Your task to perform on an android device: Find coffee shops on Maps Image 0: 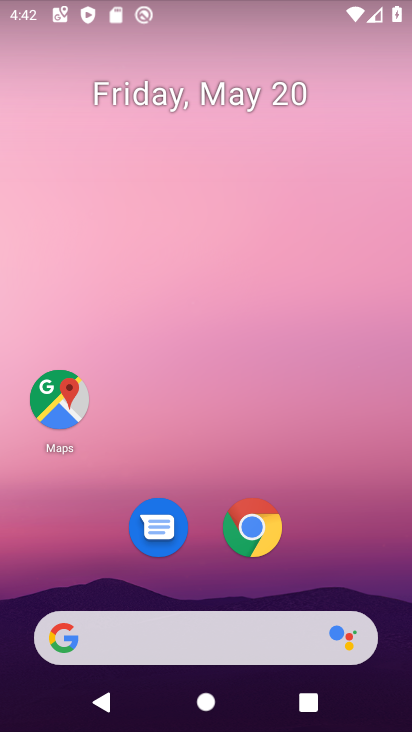
Step 0: drag from (203, 498) to (228, 178)
Your task to perform on an android device: Find coffee shops on Maps Image 1: 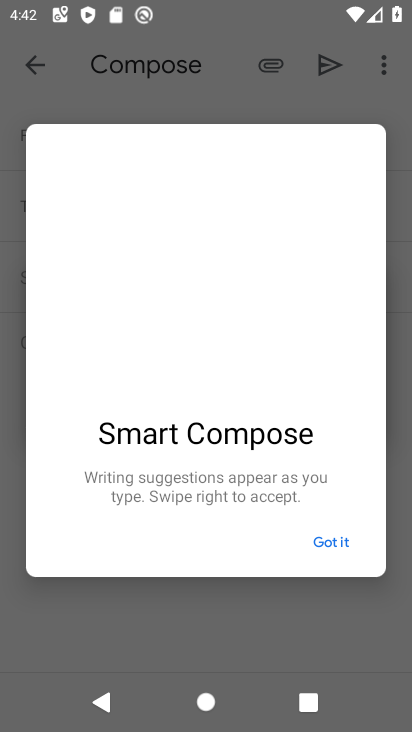
Step 1: press home button
Your task to perform on an android device: Find coffee shops on Maps Image 2: 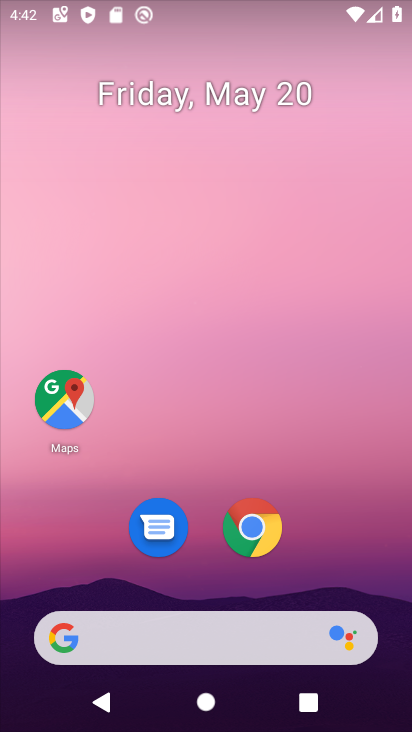
Step 2: click (69, 391)
Your task to perform on an android device: Find coffee shops on Maps Image 3: 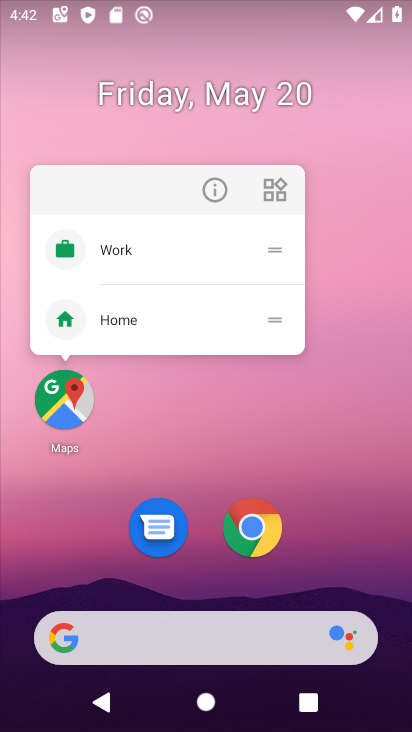
Step 3: click (51, 408)
Your task to perform on an android device: Find coffee shops on Maps Image 4: 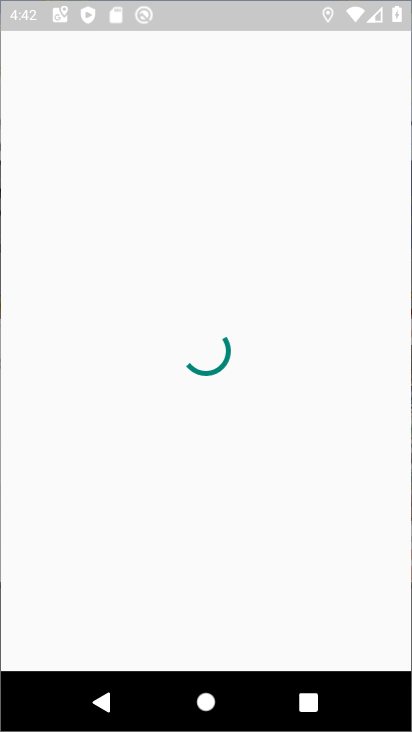
Step 4: click (309, 73)
Your task to perform on an android device: Find coffee shops on Maps Image 5: 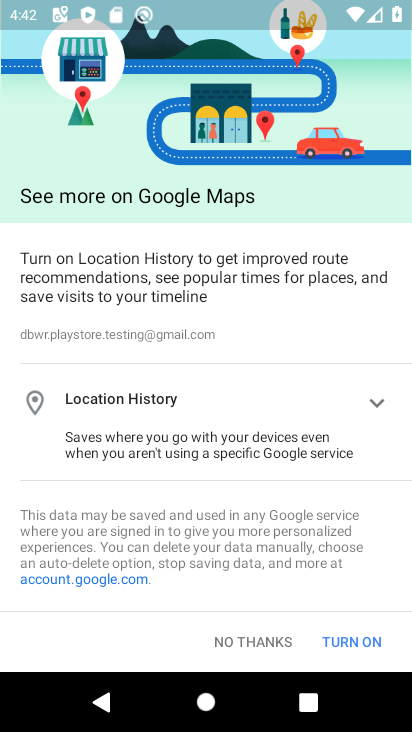
Step 5: click (361, 642)
Your task to perform on an android device: Find coffee shops on Maps Image 6: 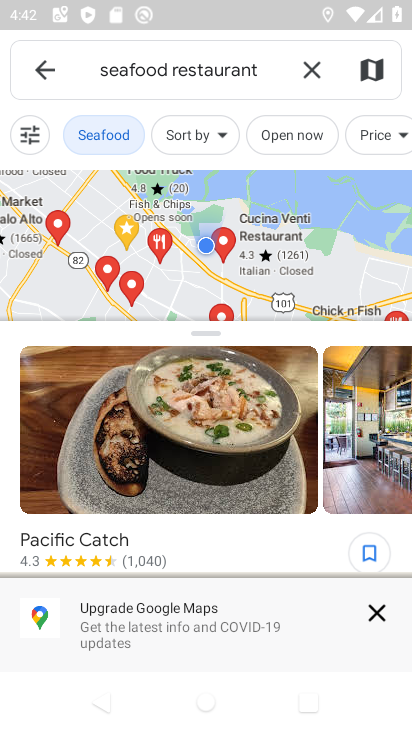
Step 6: click (307, 67)
Your task to perform on an android device: Find coffee shops on Maps Image 7: 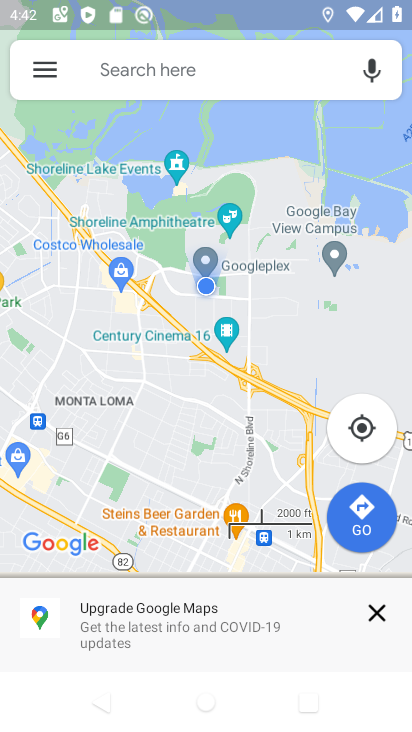
Step 7: click (211, 65)
Your task to perform on an android device: Find coffee shops on Maps Image 8: 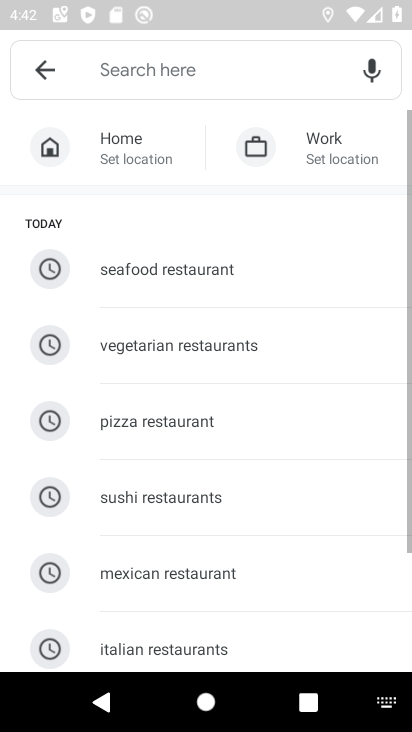
Step 8: drag from (167, 613) to (167, 230)
Your task to perform on an android device: Find coffee shops on Maps Image 9: 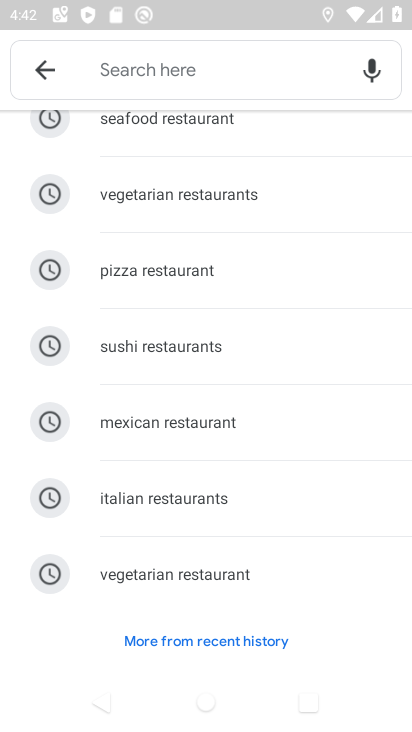
Step 9: click (168, 644)
Your task to perform on an android device: Find coffee shops on Maps Image 10: 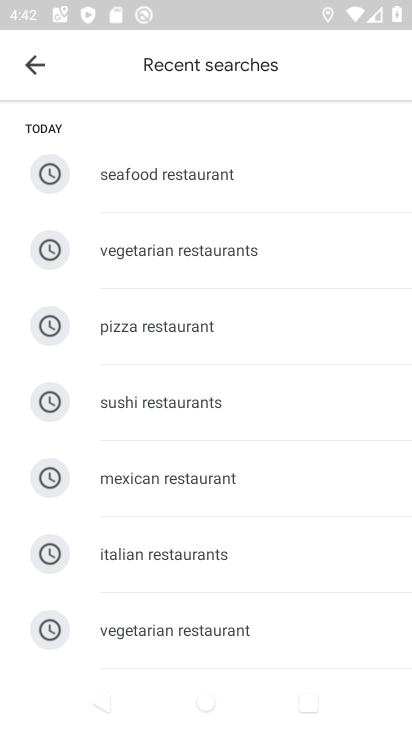
Step 10: drag from (168, 644) to (226, 318)
Your task to perform on an android device: Find coffee shops on Maps Image 11: 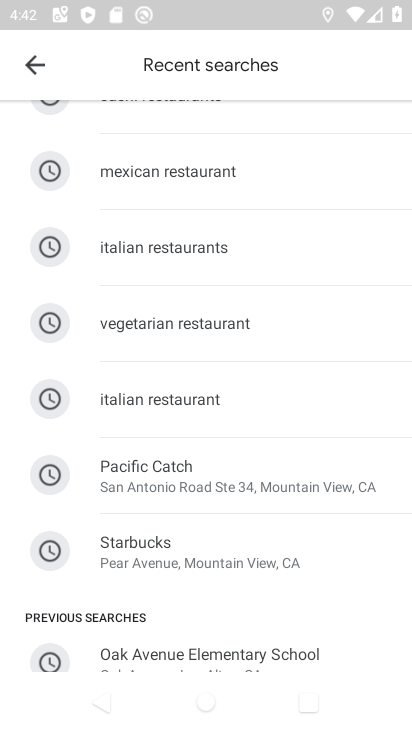
Step 11: drag from (203, 661) to (238, 328)
Your task to perform on an android device: Find coffee shops on Maps Image 12: 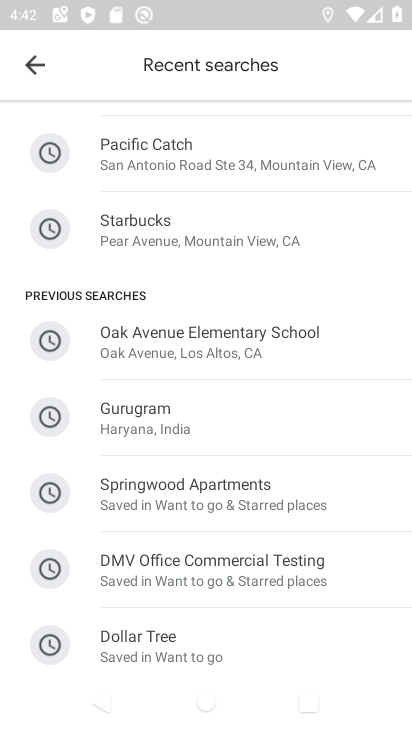
Step 12: drag from (232, 608) to (268, 249)
Your task to perform on an android device: Find coffee shops on Maps Image 13: 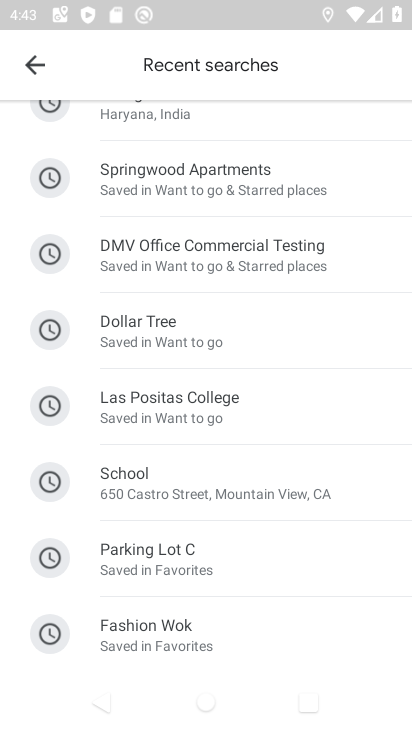
Step 13: drag from (212, 609) to (287, 234)
Your task to perform on an android device: Find coffee shops on Maps Image 14: 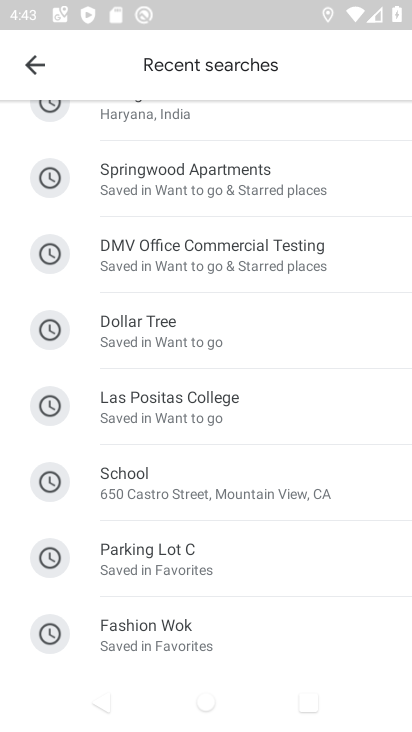
Step 14: drag from (186, 648) to (212, 348)
Your task to perform on an android device: Find coffee shops on Maps Image 15: 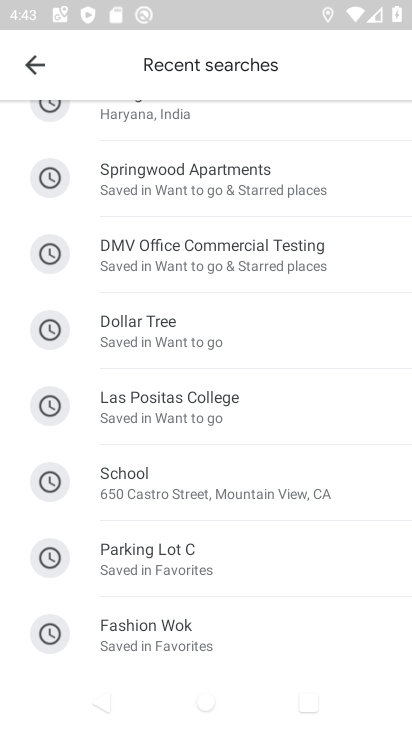
Step 15: click (28, 62)
Your task to perform on an android device: Find coffee shops on Maps Image 16: 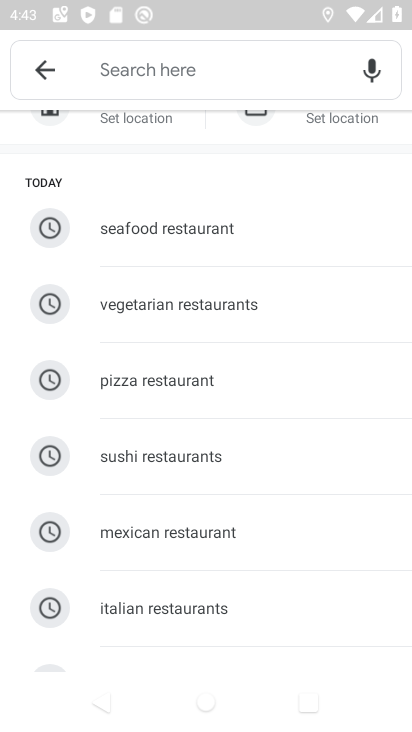
Step 16: type "coffee shopes"
Your task to perform on an android device: Find coffee shops on Maps Image 17: 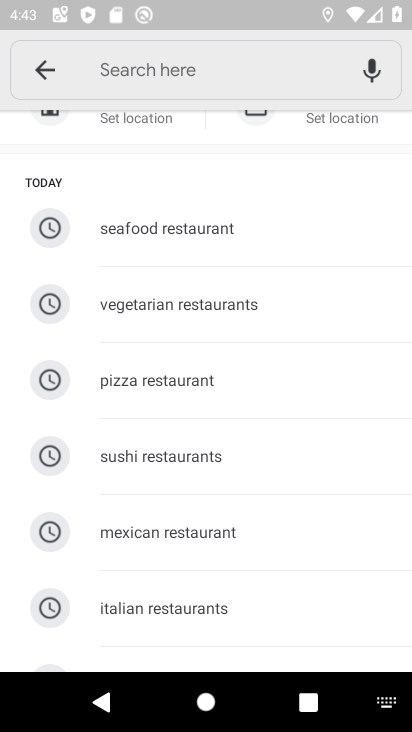
Step 17: click (164, 96)
Your task to perform on an android device: Find coffee shops on Maps Image 18: 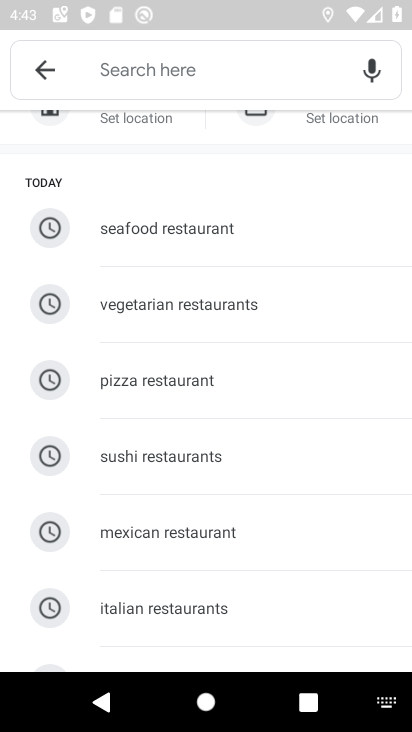
Step 18: type "coffee shopes"
Your task to perform on an android device: Find coffee shops on Maps Image 19: 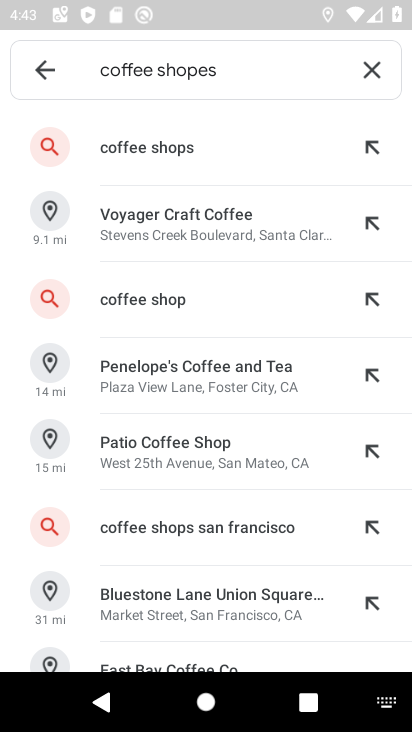
Step 19: click (152, 150)
Your task to perform on an android device: Find coffee shops on Maps Image 20: 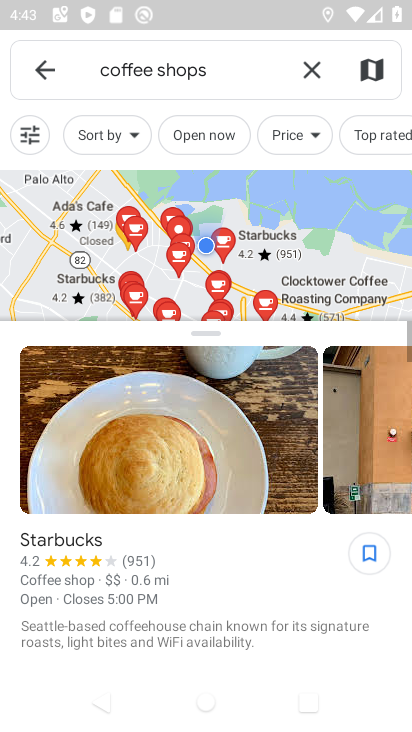
Step 20: task complete